Your task to perform on an android device: Open calendar and show me the third week of next month Image 0: 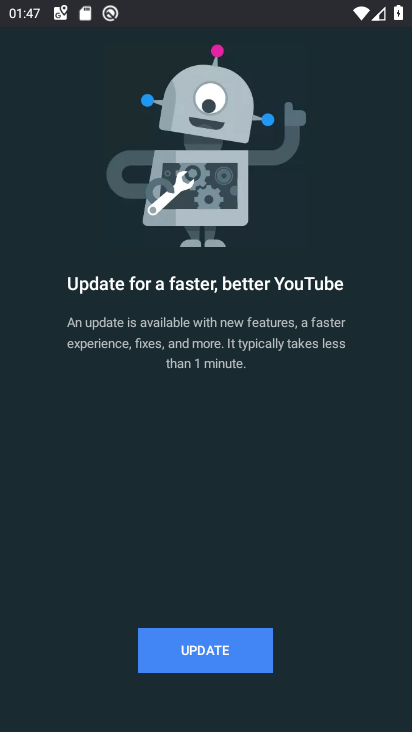
Step 0: press home button
Your task to perform on an android device: Open calendar and show me the third week of next month Image 1: 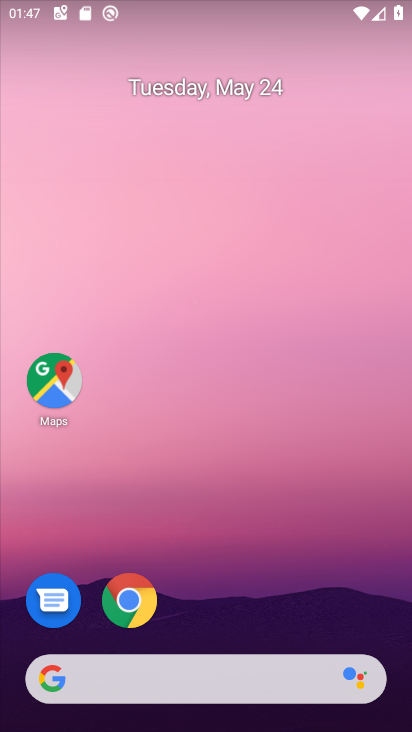
Step 1: drag from (258, 502) to (239, 187)
Your task to perform on an android device: Open calendar and show me the third week of next month Image 2: 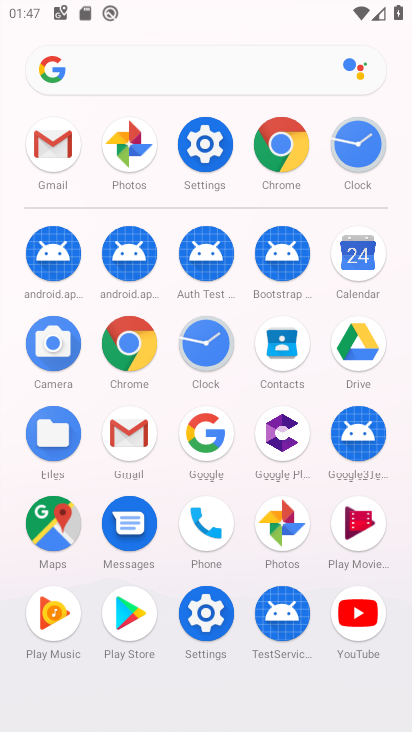
Step 2: click (359, 246)
Your task to perform on an android device: Open calendar and show me the third week of next month Image 3: 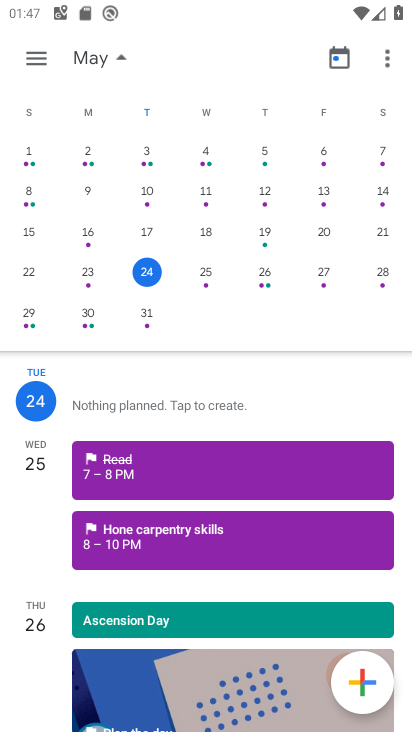
Step 3: task complete